Your task to perform on an android device: Clear the cart on costco.com. Add "logitech g pro" to the cart on costco.com, then select checkout. Image 0: 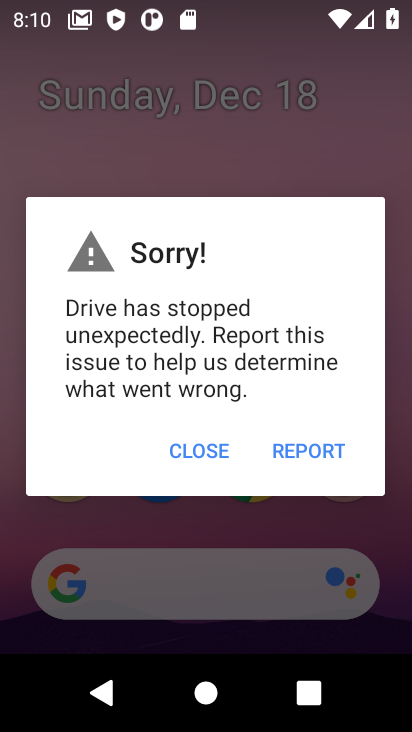
Step 0: press home button
Your task to perform on an android device: Clear the cart on costco.com. Add "logitech g pro" to the cart on costco.com, then select checkout. Image 1: 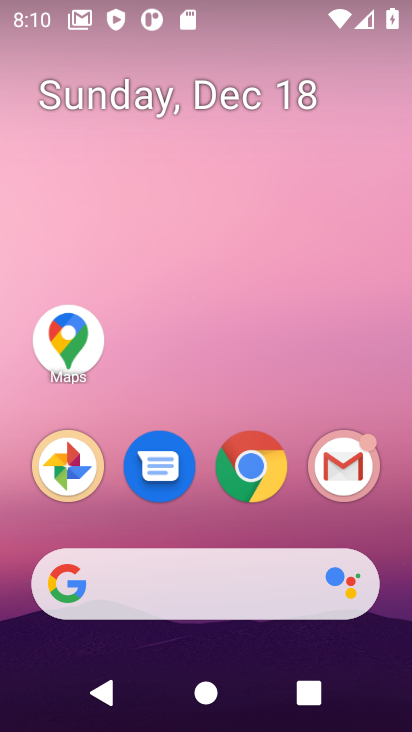
Step 1: click (238, 477)
Your task to perform on an android device: Clear the cart on costco.com. Add "logitech g pro" to the cart on costco.com, then select checkout. Image 2: 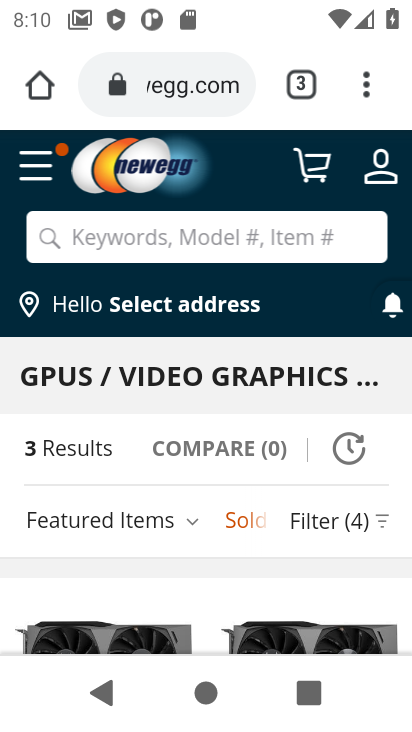
Step 2: click (201, 83)
Your task to perform on an android device: Clear the cart on costco.com. Add "logitech g pro" to the cart on costco.com, then select checkout. Image 3: 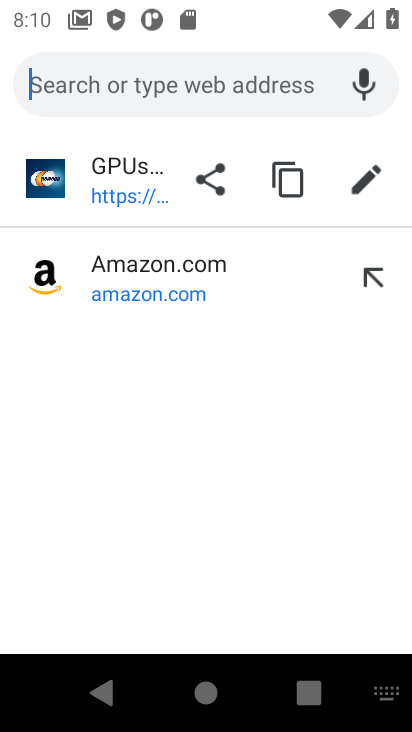
Step 3: type "costco"
Your task to perform on an android device: Clear the cart on costco.com. Add "logitech g pro" to the cart on costco.com, then select checkout. Image 4: 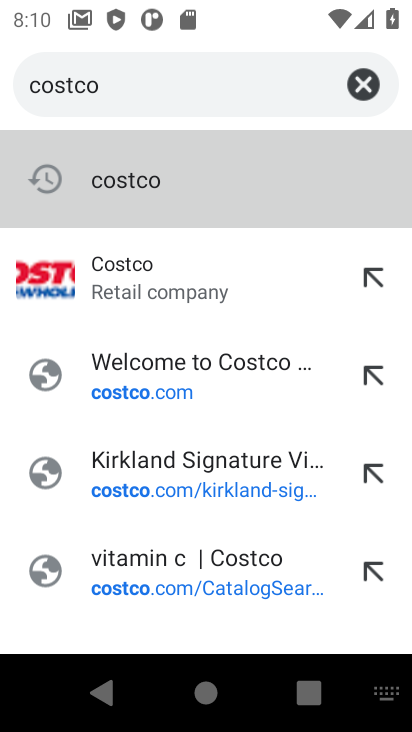
Step 4: click (219, 287)
Your task to perform on an android device: Clear the cart on costco.com. Add "logitech g pro" to the cart on costco.com, then select checkout. Image 5: 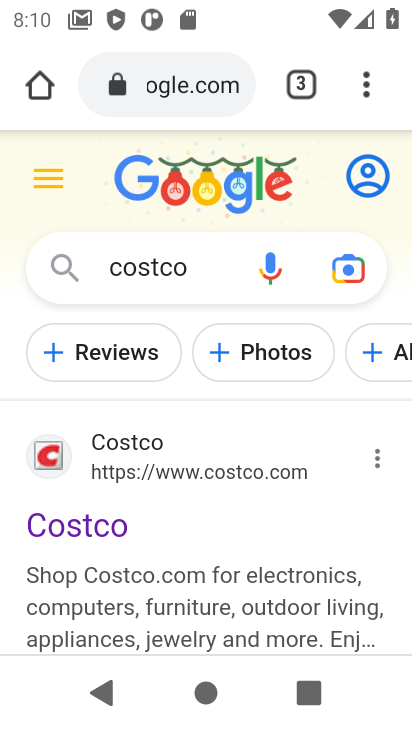
Step 5: click (87, 519)
Your task to perform on an android device: Clear the cart on costco.com. Add "logitech g pro" to the cart on costco.com, then select checkout. Image 6: 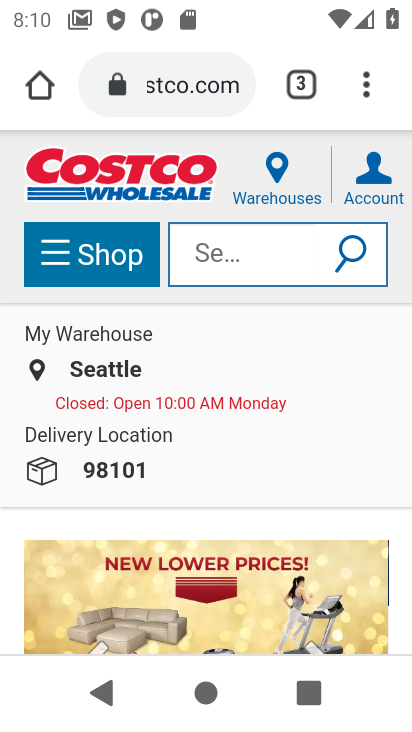
Step 6: click (266, 243)
Your task to perform on an android device: Clear the cart on costco.com. Add "logitech g pro" to the cart on costco.com, then select checkout. Image 7: 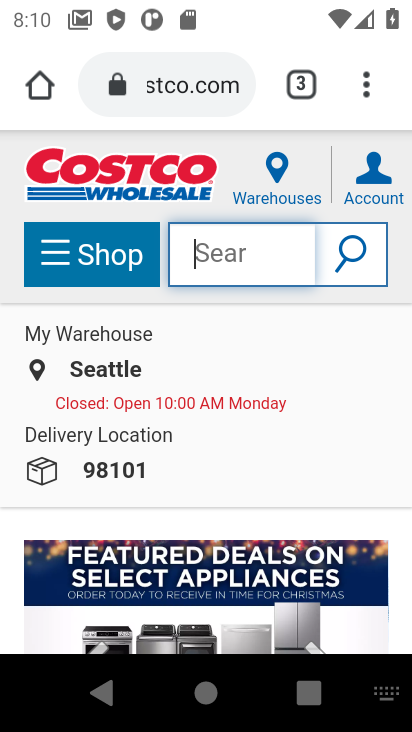
Step 7: type "logitech g pro"
Your task to perform on an android device: Clear the cart on costco.com. Add "logitech g pro" to the cart on costco.com, then select checkout. Image 8: 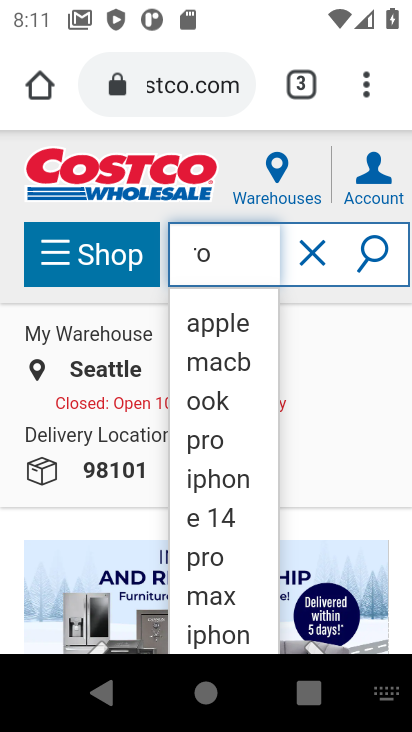
Step 8: click (319, 347)
Your task to perform on an android device: Clear the cart on costco.com. Add "logitech g pro" to the cart on costco.com, then select checkout. Image 9: 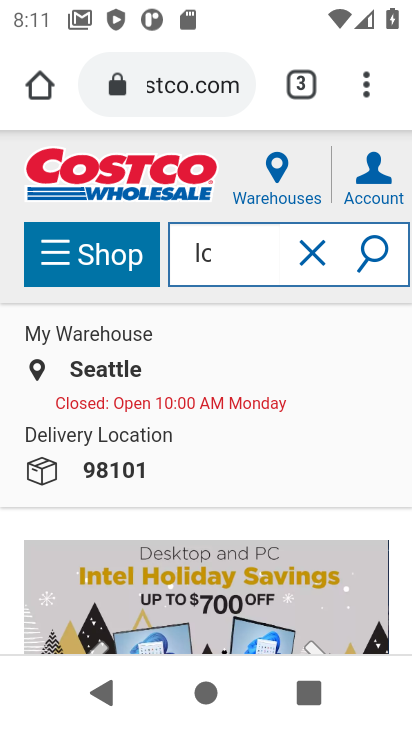
Step 9: drag from (205, 515) to (200, 83)
Your task to perform on an android device: Clear the cart on costco.com. Add "logitech g pro" to the cart on costco.com, then select checkout. Image 10: 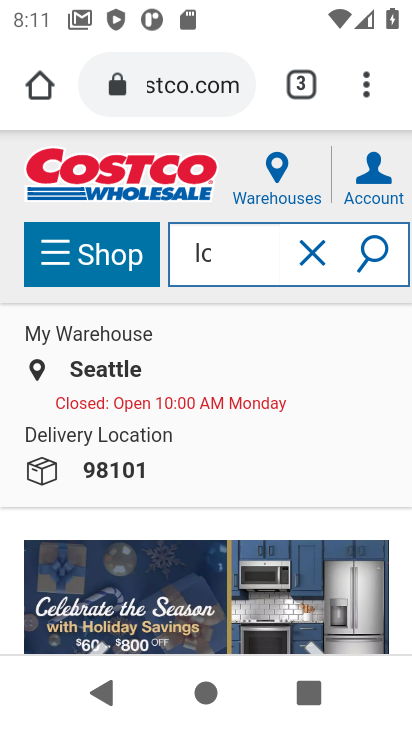
Step 10: drag from (167, 466) to (229, 107)
Your task to perform on an android device: Clear the cart on costco.com. Add "logitech g pro" to the cart on costco.com, then select checkout. Image 11: 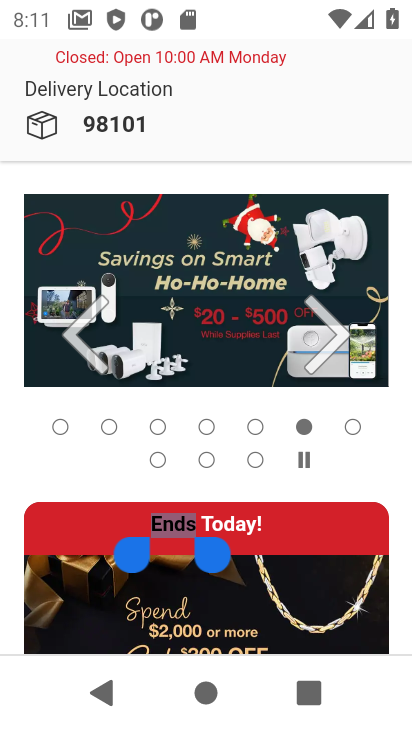
Step 11: drag from (266, 498) to (250, 120)
Your task to perform on an android device: Clear the cart on costco.com. Add "logitech g pro" to the cart on costco.com, then select checkout. Image 12: 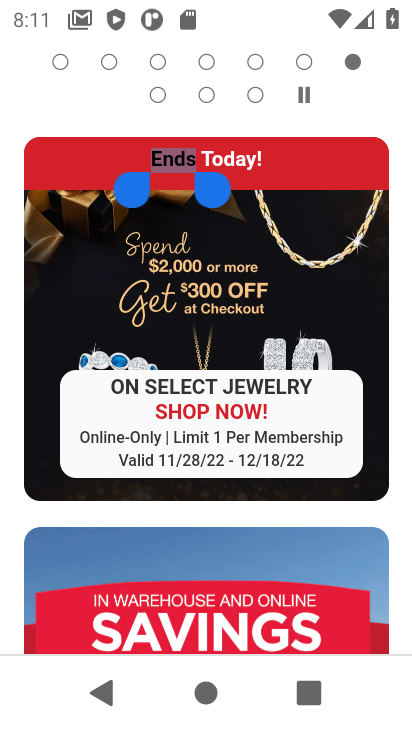
Step 12: drag from (330, 135) to (364, 705)
Your task to perform on an android device: Clear the cart on costco.com. Add "logitech g pro" to the cart on costco.com, then select checkout. Image 13: 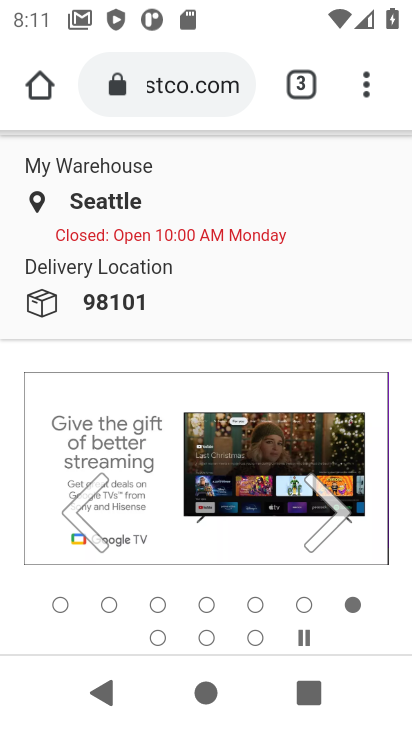
Step 13: drag from (300, 158) to (312, 477)
Your task to perform on an android device: Clear the cart on costco.com. Add "logitech g pro" to the cart on costco.com, then select checkout. Image 14: 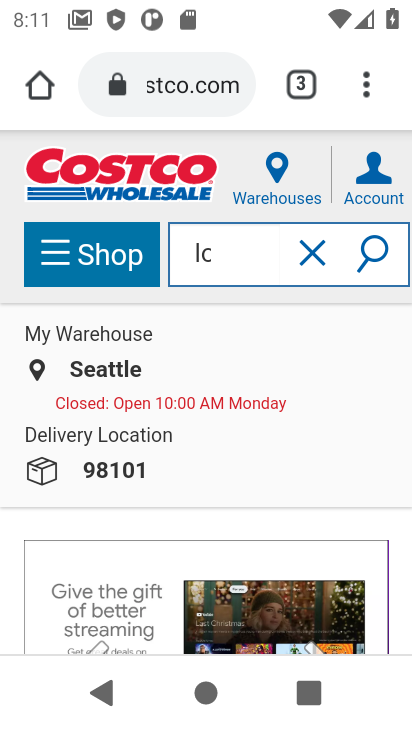
Step 14: click (307, 250)
Your task to perform on an android device: Clear the cart on costco.com. Add "logitech g pro" to the cart on costco.com, then select checkout. Image 15: 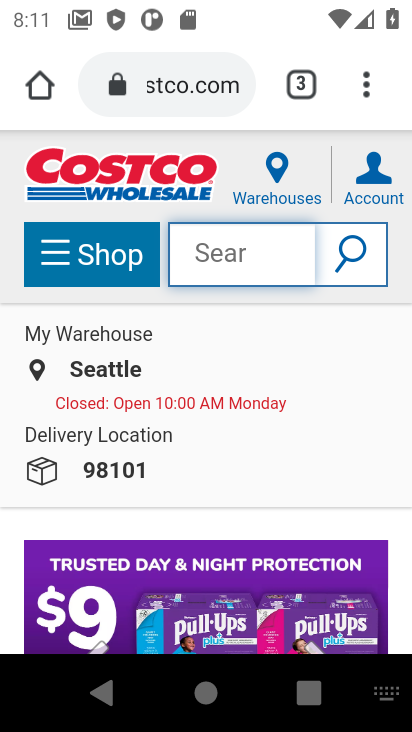
Step 15: type "logitech g pro"
Your task to perform on an android device: Clear the cart on costco.com. Add "logitech g pro" to the cart on costco.com, then select checkout. Image 16: 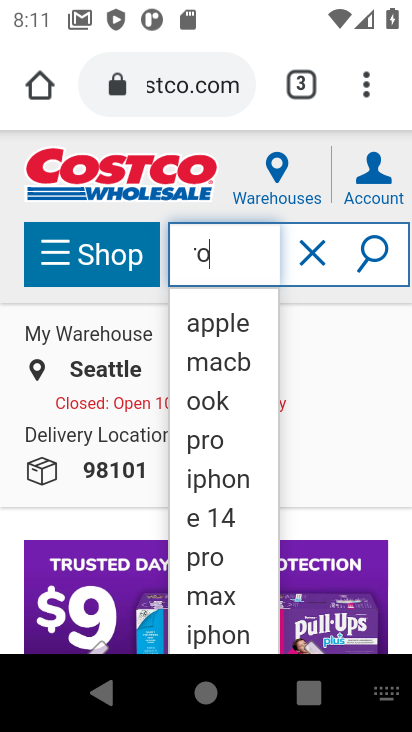
Step 16: click (234, 321)
Your task to perform on an android device: Clear the cart on costco.com. Add "logitech g pro" to the cart on costco.com, then select checkout. Image 17: 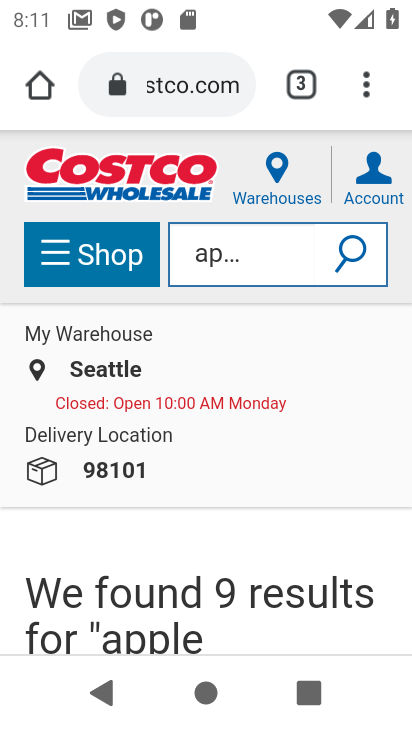
Step 17: drag from (211, 634) to (285, 370)
Your task to perform on an android device: Clear the cart on costco.com. Add "logitech g pro" to the cart on costco.com, then select checkout. Image 18: 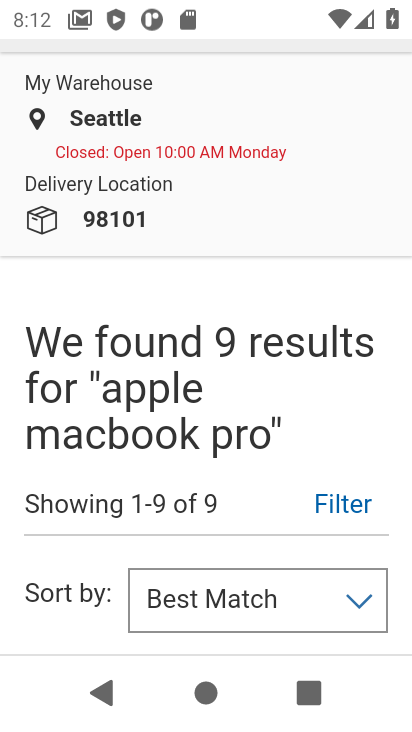
Step 18: drag from (275, 510) to (283, 64)
Your task to perform on an android device: Clear the cart on costco.com. Add "logitech g pro" to the cart on costco.com, then select checkout. Image 19: 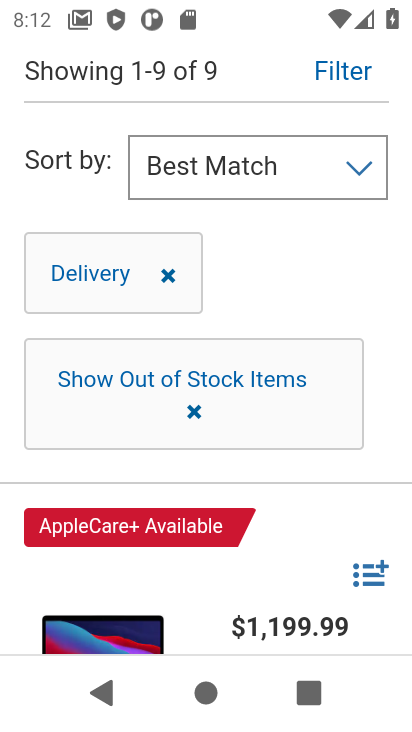
Step 19: drag from (280, 494) to (268, 199)
Your task to perform on an android device: Clear the cart on costco.com. Add "logitech g pro" to the cart on costco.com, then select checkout. Image 20: 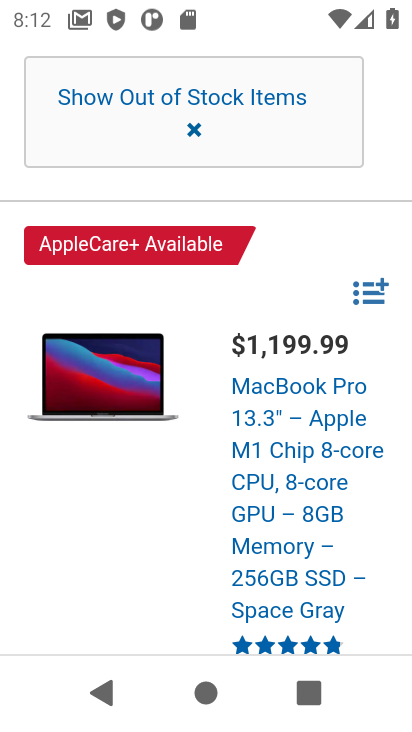
Step 20: click (185, 506)
Your task to perform on an android device: Clear the cart on costco.com. Add "logitech g pro" to the cart on costco.com, then select checkout. Image 21: 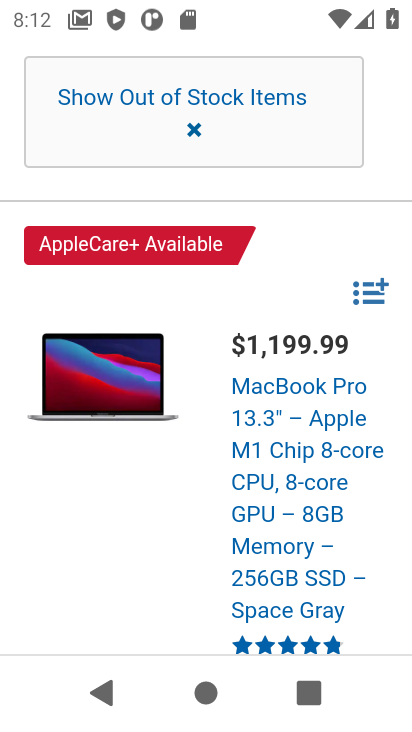
Step 21: click (337, 498)
Your task to perform on an android device: Clear the cart on costco.com. Add "logitech g pro" to the cart on costco.com, then select checkout. Image 22: 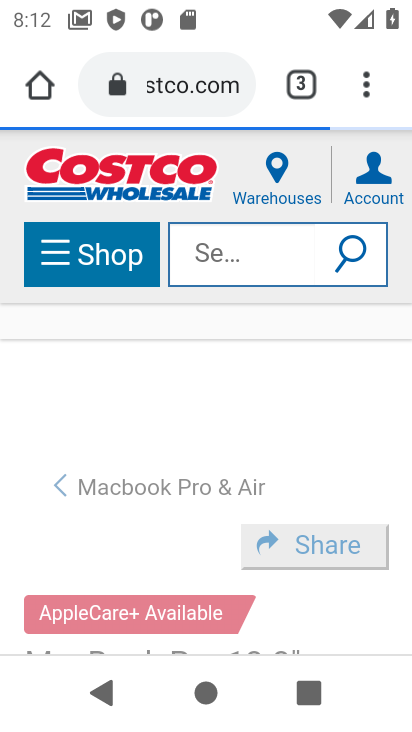
Step 22: drag from (320, 621) to (274, 241)
Your task to perform on an android device: Clear the cart on costco.com. Add "logitech g pro" to the cart on costco.com, then select checkout. Image 23: 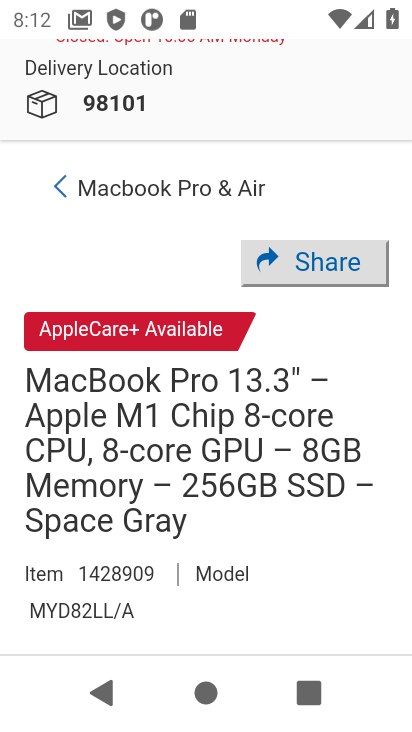
Step 23: drag from (251, 556) to (211, 136)
Your task to perform on an android device: Clear the cart on costco.com. Add "logitech g pro" to the cart on costco.com, then select checkout. Image 24: 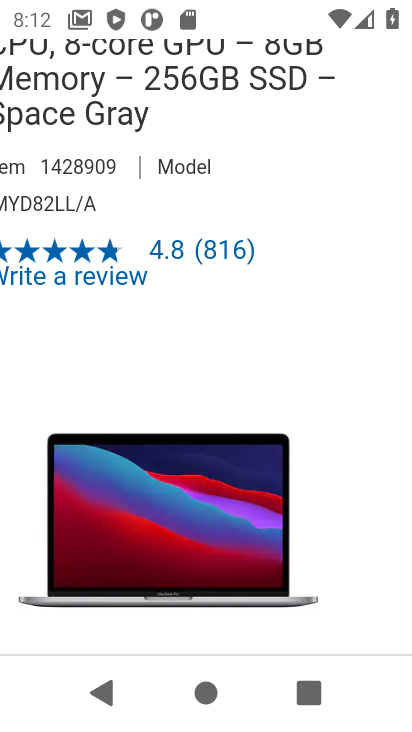
Step 24: drag from (218, 528) to (231, 193)
Your task to perform on an android device: Clear the cart on costco.com. Add "logitech g pro" to the cart on costco.com, then select checkout. Image 25: 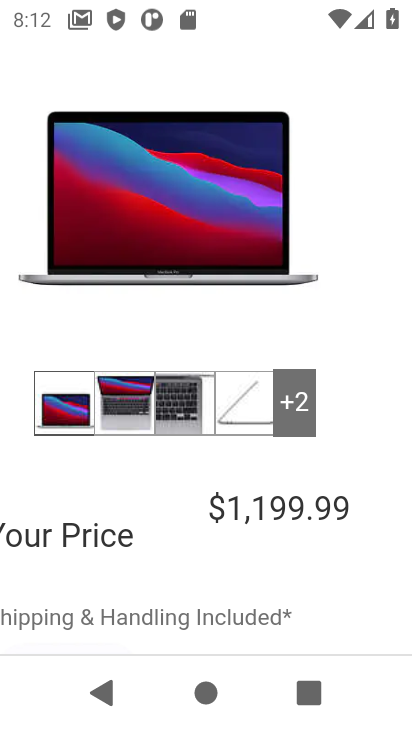
Step 25: drag from (220, 565) to (233, 211)
Your task to perform on an android device: Clear the cart on costco.com. Add "logitech g pro" to the cart on costco.com, then select checkout. Image 26: 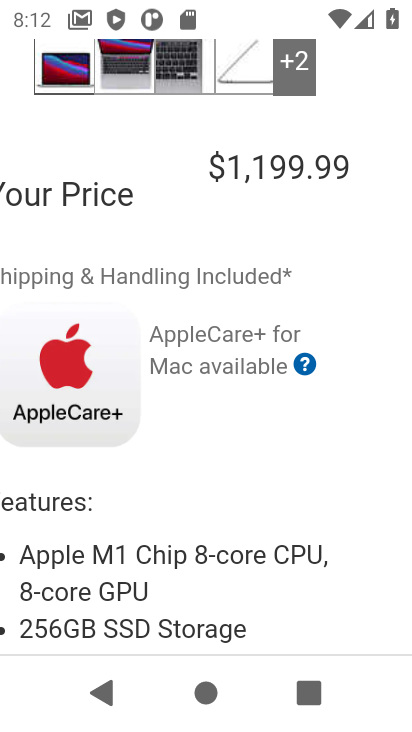
Step 26: drag from (206, 580) to (239, 230)
Your task to perform on an android device: Clear the cart on costco.com. Add "logitech g pro" to the cart on costco.com, then select checkout. Image 27: 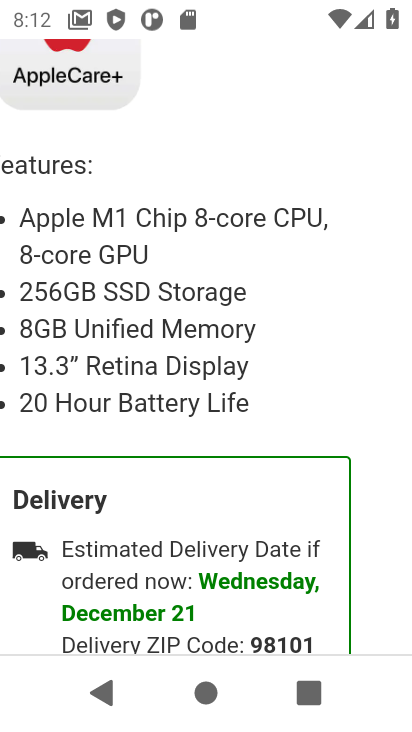
Step 27: drag from (219, 554) to (238, 289)
Your task to perform on an android device: Clear the cart on costco.com. Add "logitech g pro" to the cart on costco.com, then select checkout. Image 28: 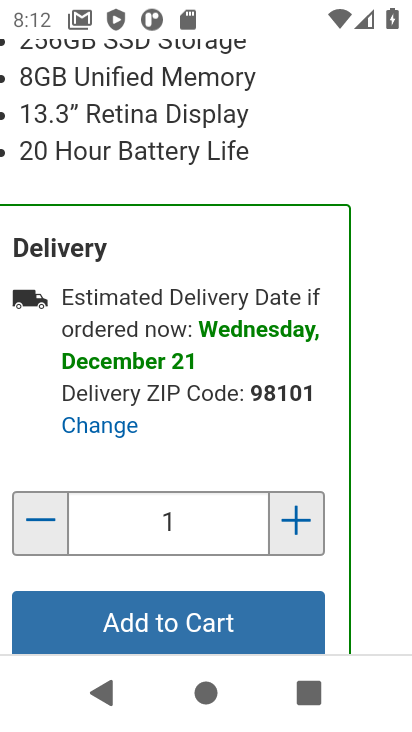
Step 28: click (175, 620)
Your task to perform on an android device: Clear the cart on costco.com. Add "logitech g pro" to the cart on costco.com, then select checkout. Image 29: 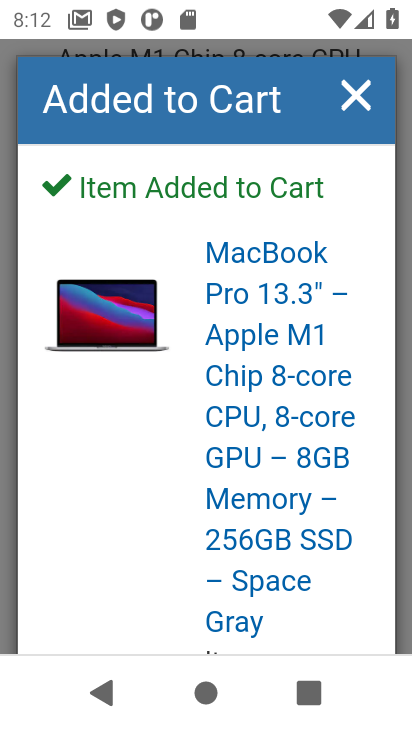
Step 29: click (355, 101)
Your task to perform on an android device: Clear the cart on costco.com. Add "logitech g pro" to the cart on costco.com, then select checkout. Image 30: 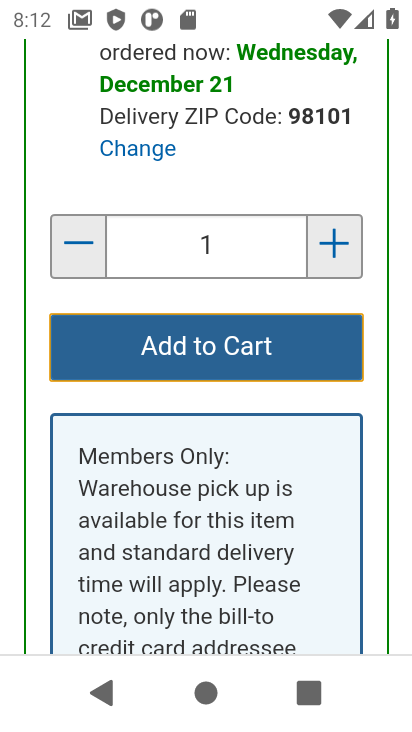
Step 30: task complete